Your task to perform on an android device: change the clock display to show seconds Image 0: 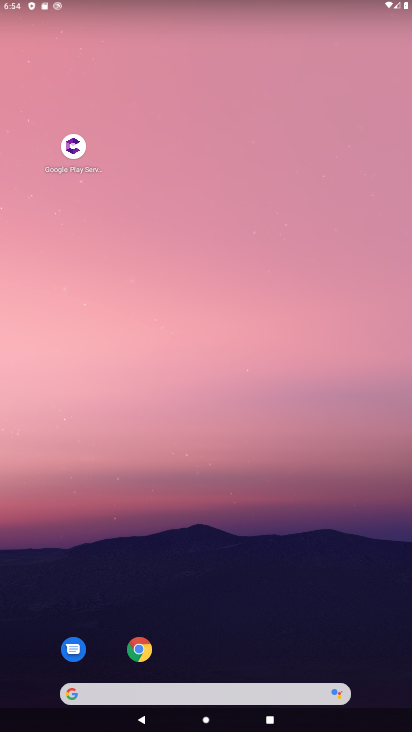
Step 0: drag from (216, 708) to (232, 118)
Your task to perform on an android device: change the clock display to show seconds Image 1: 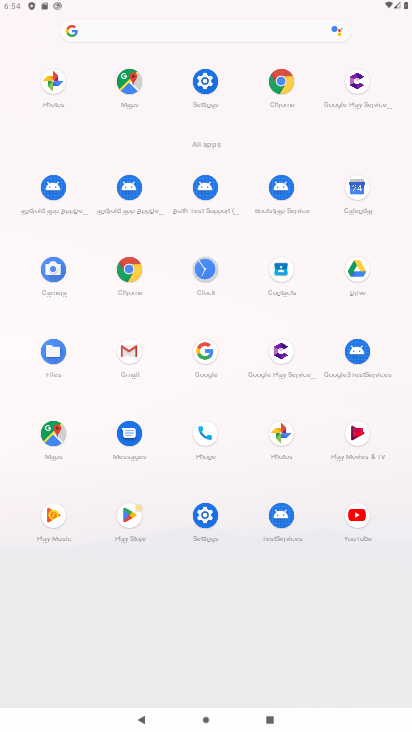
Step 1: click (203, 286)
Your task to perform on an android device: change the clock display to show seconds Image 2: 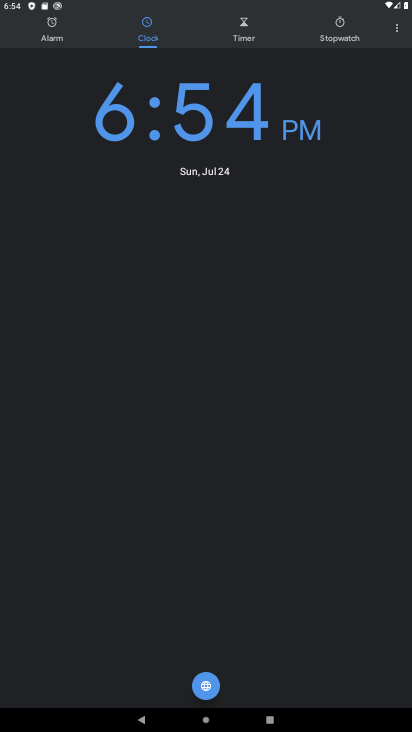
Step 2: click (394, 24)
Your task to perform on an android device: change the clock display to show seconds Image 3: 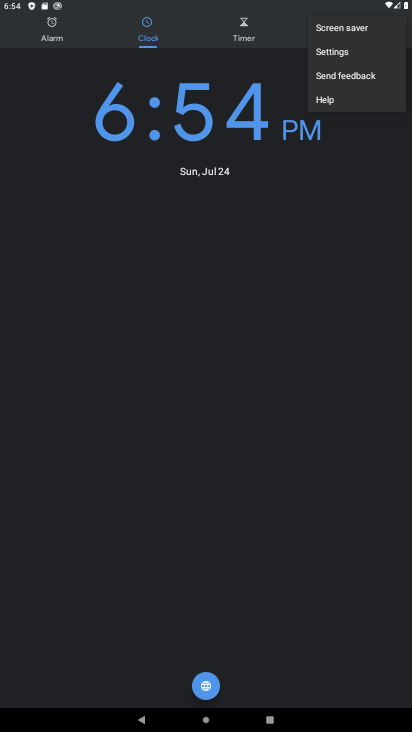
Step 3: click (337, 56)
Your task to perform on an android device: change the clock display to show seconds Image 4: 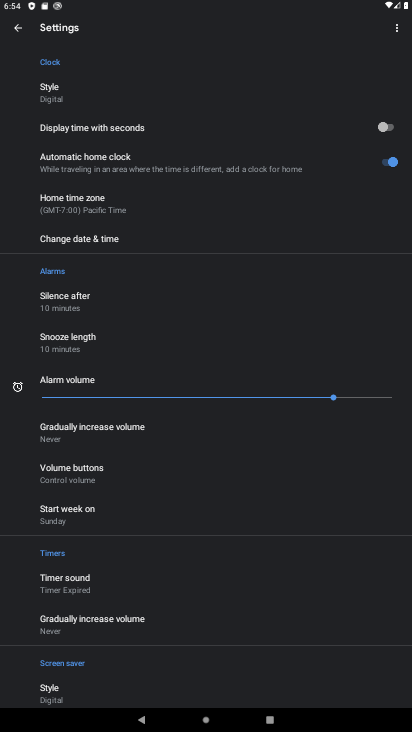
Step 4: click (378, 127)
Your task to perform on an android device: change the clock display to show seconds Image 5: 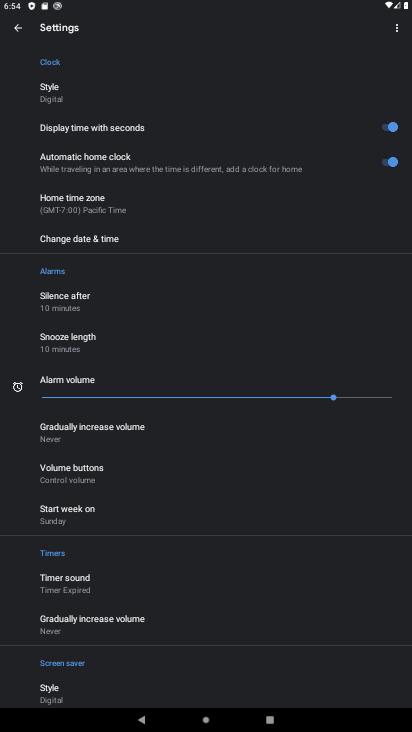
Step 5: task complete